Your task to perform on an android device: Open settings on Google Maps Image 0: 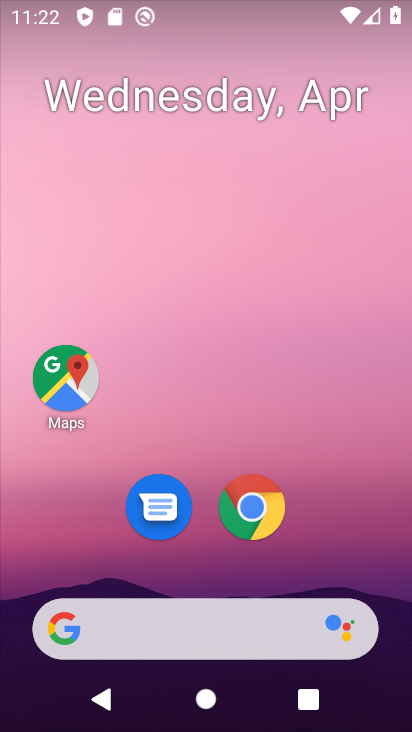
Step 0: drag from (347, 570) to (273, 13)
Your task to perform on an android device: Open settings on Google Maps Image 1: 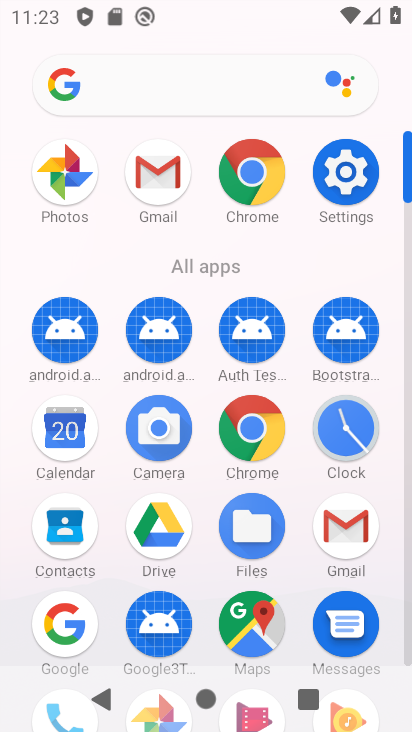
Step 1: click (265, 613)
Your task to perform on an android device: Open settings on Google Maps Image 2: 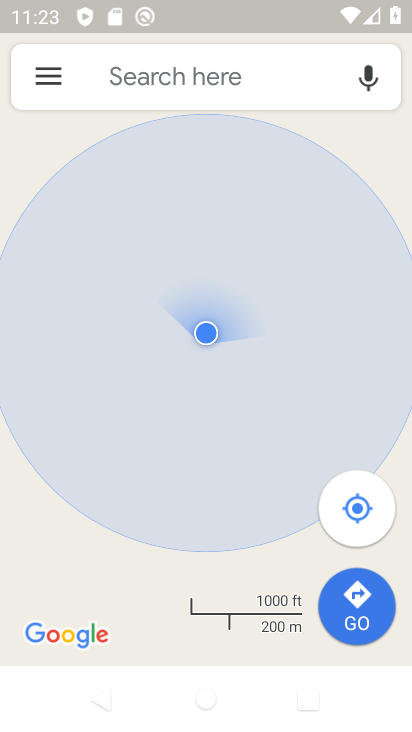
Step 2: click (45, 71)
Your task to perform on an android device: Open settings on Google Maps Image 3: 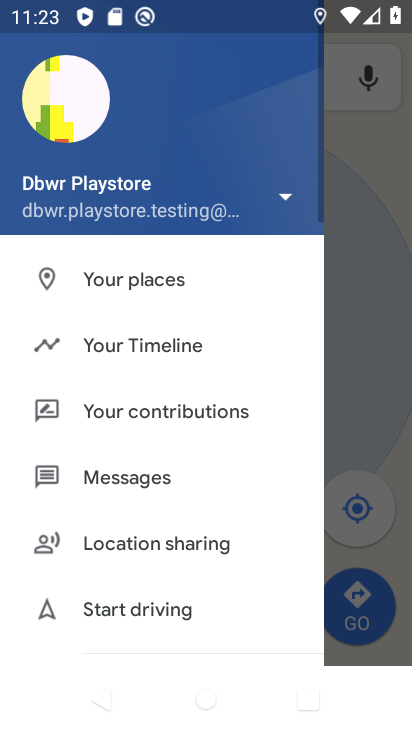
Step 3: drag from (214, 448) to (227, 115)
Your task to perform on an android device: Open settings on Google Maps Image 4: 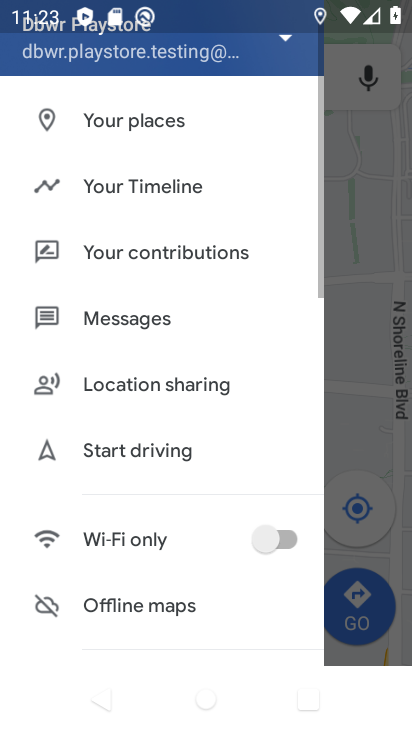
Step 4: drag from (121, 549) to (191, 98)
Your task to perform on an android device: Open settings on Google Maps Image 5: 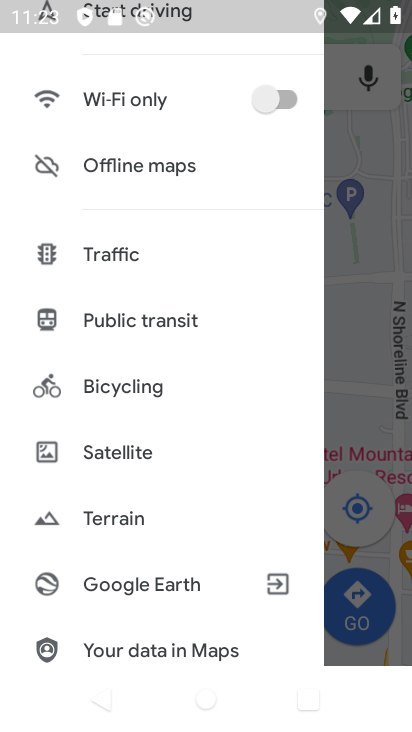
Step 5: drag from (102, 579) to (208, 137)
Your task to perform on an android device: Open settings on Google Maps Image 6: 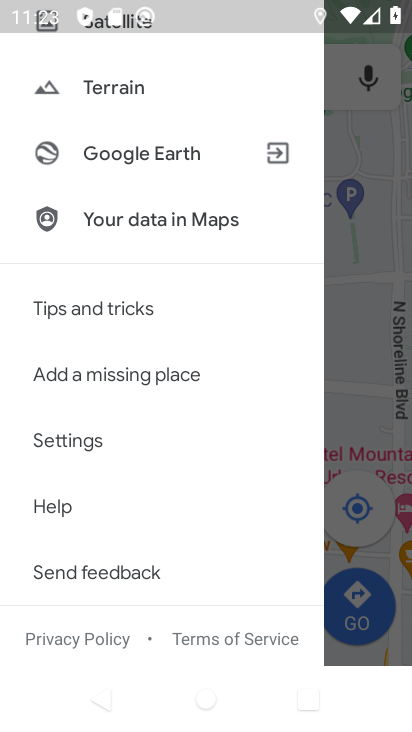
Step 6: click (93, 440)
Your task to perform on an android device: Open settings on Google Maps Image 7: 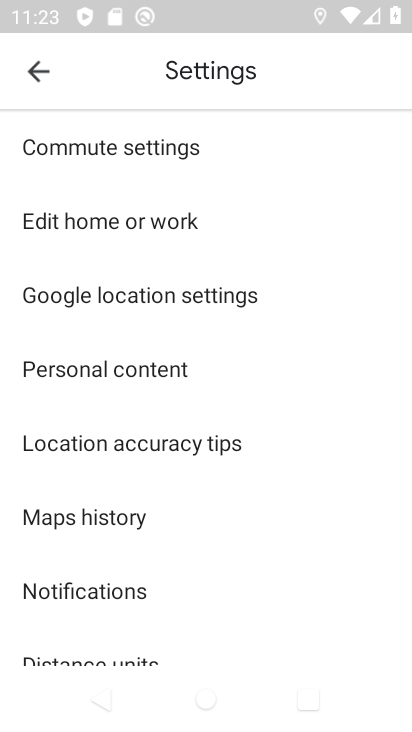
Step 7: task complete